Your task to perform on an android device: check out phone information Image 0: 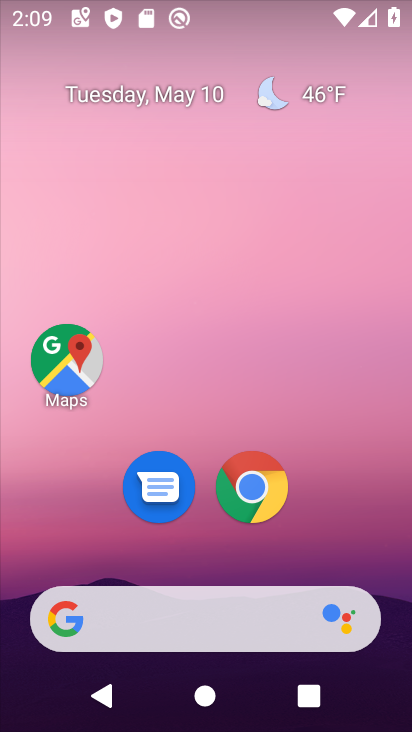
Step 0: drag from (331, 514) to (274, 155)
Your task to perform on an android device: check out phone information Image 1: 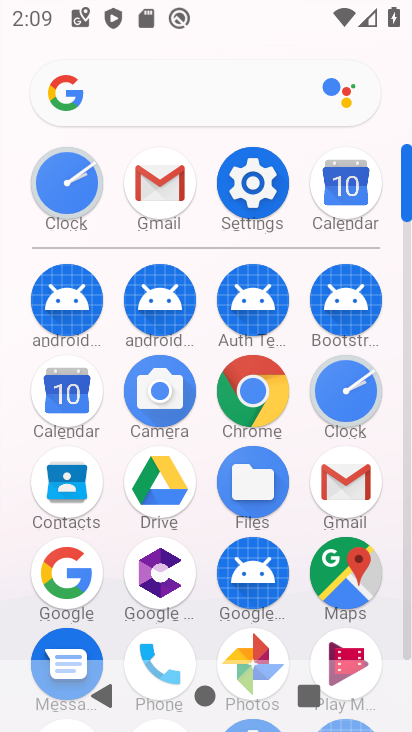
Step 1: click (164, 632)
Your task to perform on an android device: check out phone information Image 2: 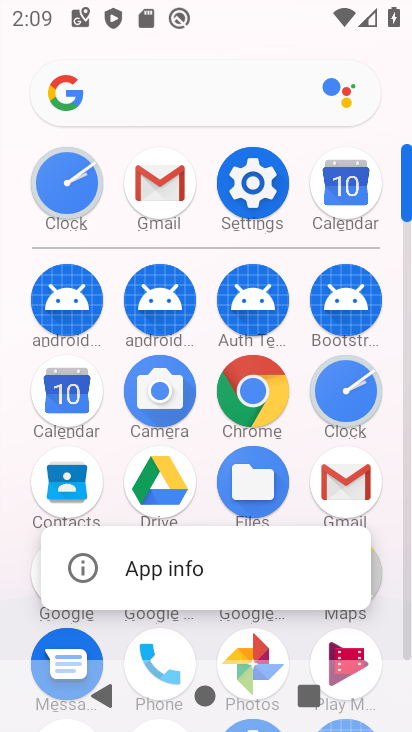
Step 2: click (194, 574)
Your task to perform on an android device: check out phone information Image 3: 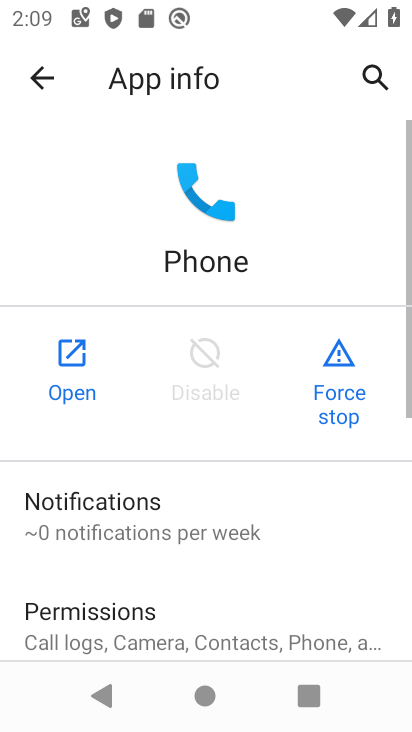
Step 3: task complete